Your task to perform on an android device: What's on my calendar tomorrow? Image 0: 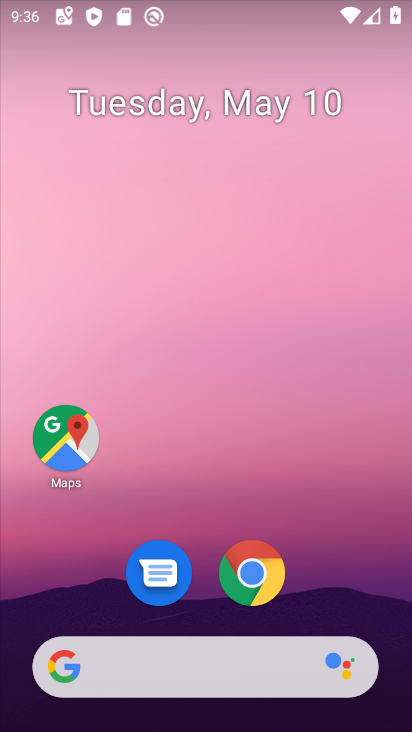
Step 0: drag from (341, 580) to (205, 164)
Your task to perform on an android device: What's on my calendar tomorrow? Image 1: 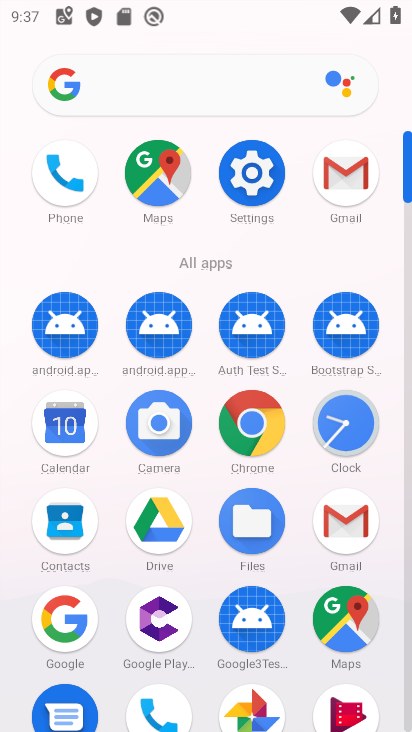
Step 1: click (67, 414)
Your task to perform on an android device: What's on my calendar tomorrow? Image 2: 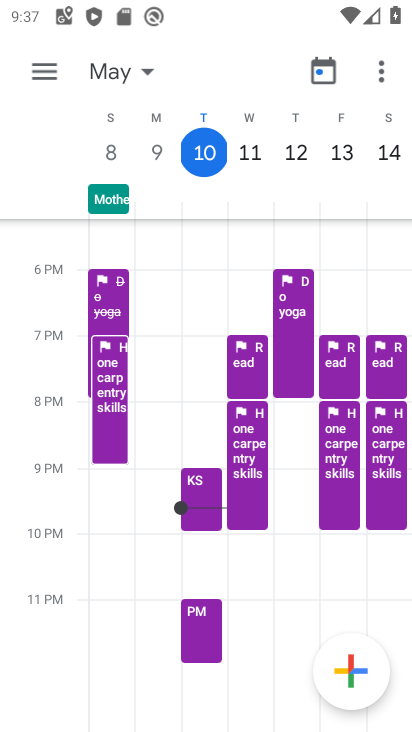
Step 2: click (50, 67)
Your task to perform on an android device: What's on my calendar tomorrow? Image 3: 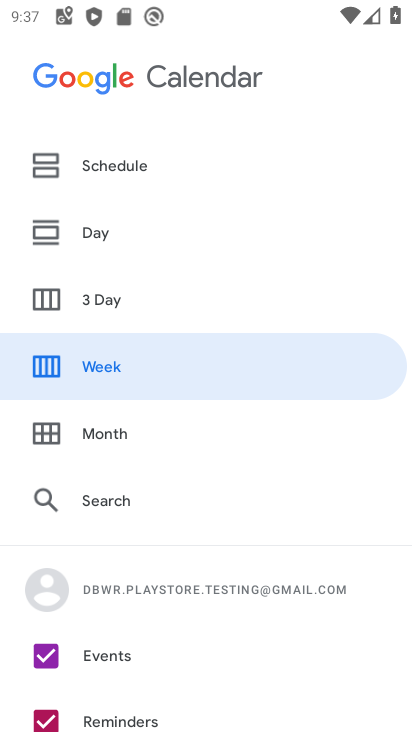
Step 3: click (100, 230)
Your task to perform on an android device: What's on my calendar tomorrow? Image 4: 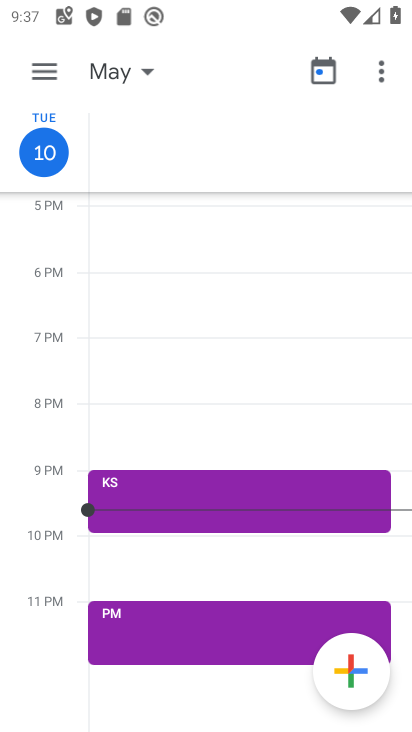
Step 4: click (144, 65)
Your task to perform on an android device: What's on my calendar tomorrow? Image 5: 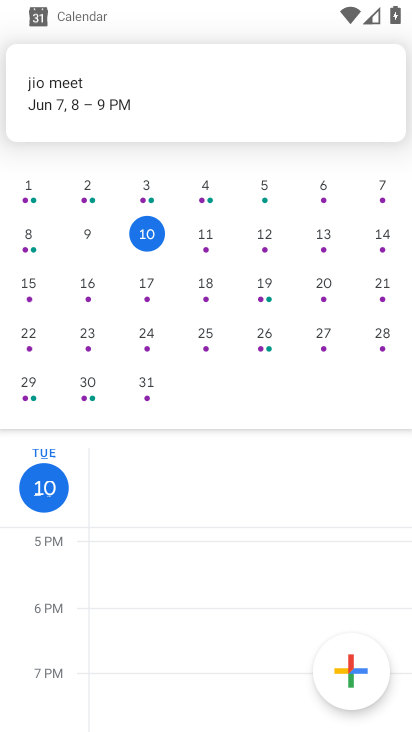
Step 5: click (146, 237)
Your task to perform on an android device: What's on my calendar tomorrow? Image 6: 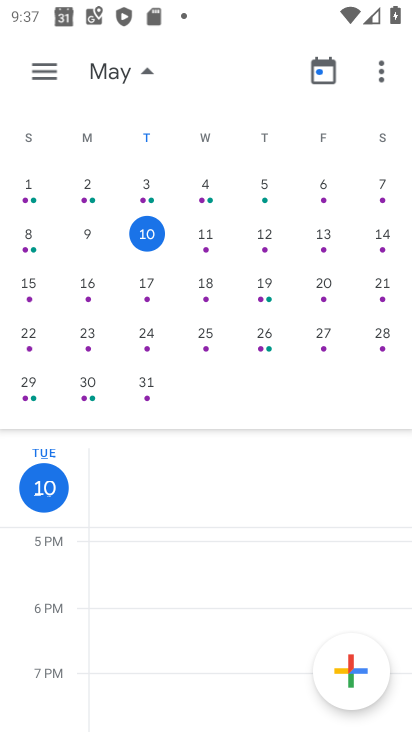
Step 6: task complete